Your task to perform on an android device: turn on notifications settings in the gmail app Image 0: 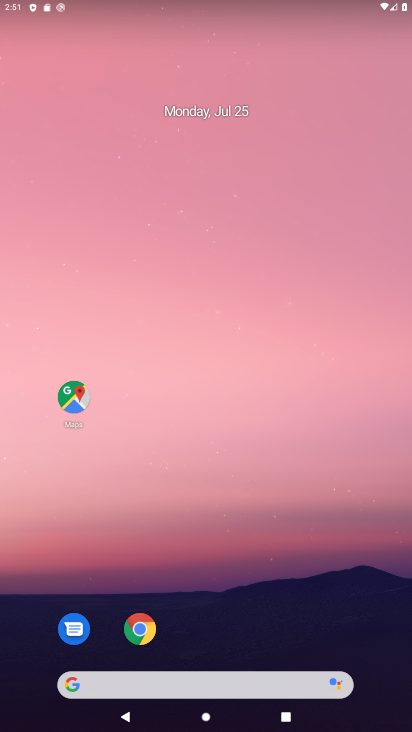
Step 0: drag from (342, 634) to (261, 8)
Your task to perform on an android device: turn on notifications settings in the gmail app Image 1: 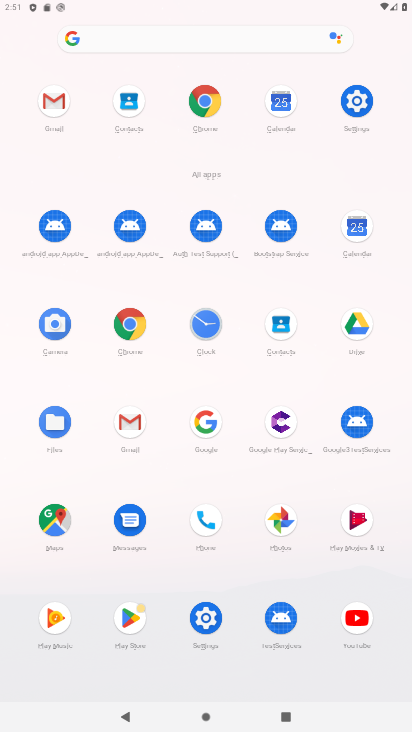
Step 1: click (46, 109)
Your task to perform on an android device: turn on notifications settings in the gmail app Image 2: 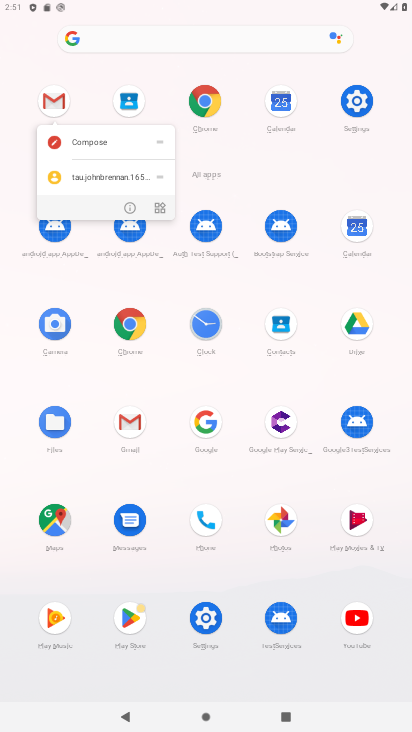
Step 2: click (47, 106)
Your task to perform on an android device: turn on notifications settings in the gmail app Image 3: 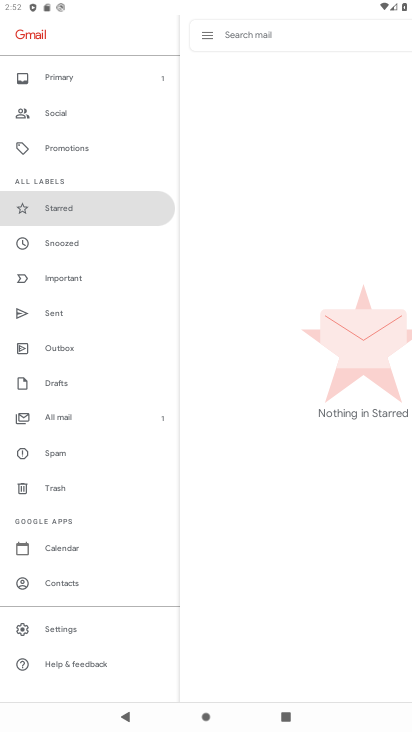
Step 3: click (77, 634)
Your task to perform on an android device: turn on notifications settings in the gmail app Image 4: 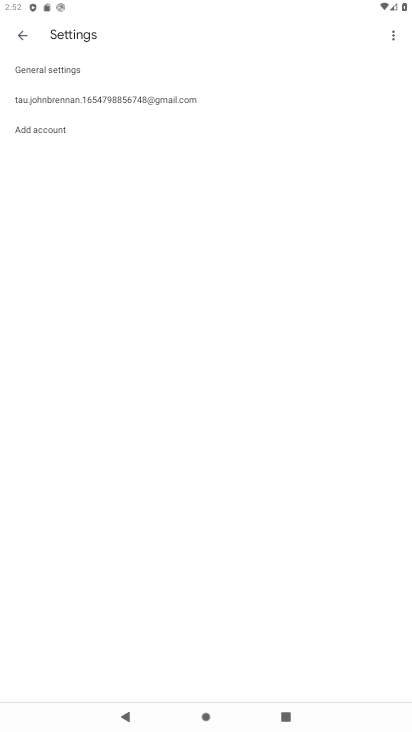
Step 4: click (74, 73)
Your task to perform on an android device: turn on notifications settings in the gmail app Image 5: 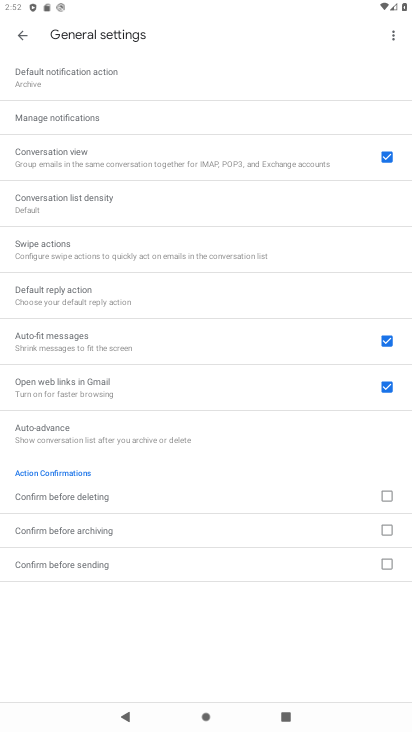
Step 5: click (76, 115)
Your task to perform on an android device: turn on notifications settings in the gmail app Image 6: 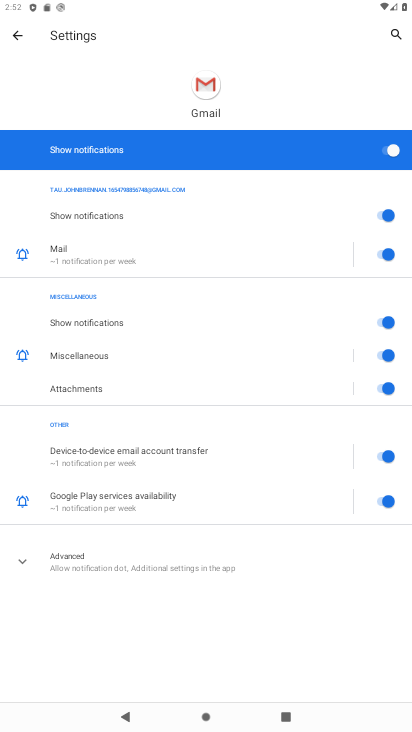
Step 6: task complete